Your task to perform on an android device: Open Chrome and go to settings Image 0: 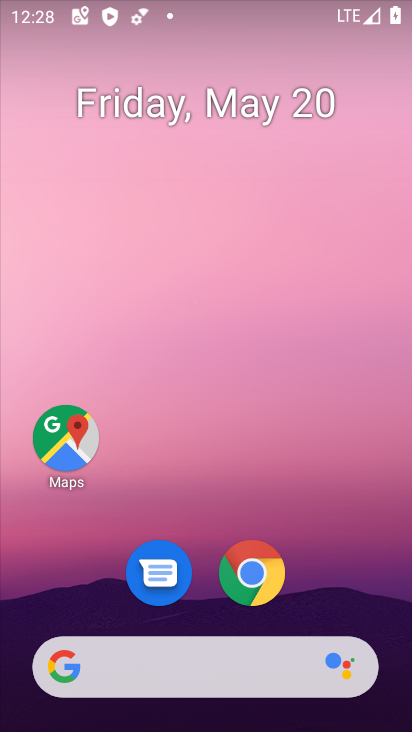
Step 0: click (242, 587)
Your task to perform on an android device: Open Chrome and go to settings Image 1: 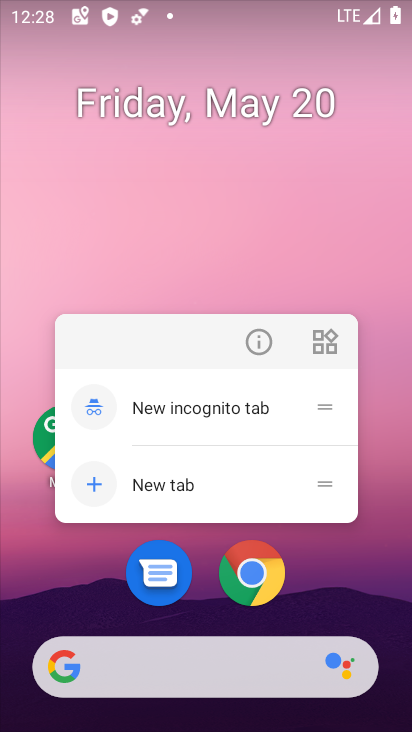
Step 1: click (240, 585)
Your task to perform on an android device: Open Chrome and go to settings Image 2: 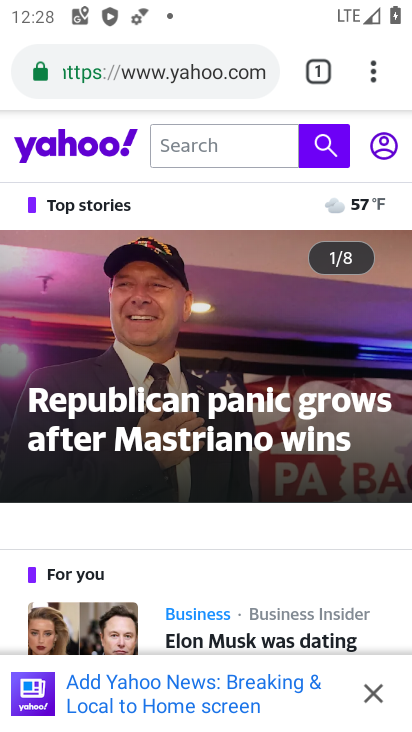
Step 2: click (382, 82)
Your task to perform on an android device: Open Chrome and go to settings Image 3: 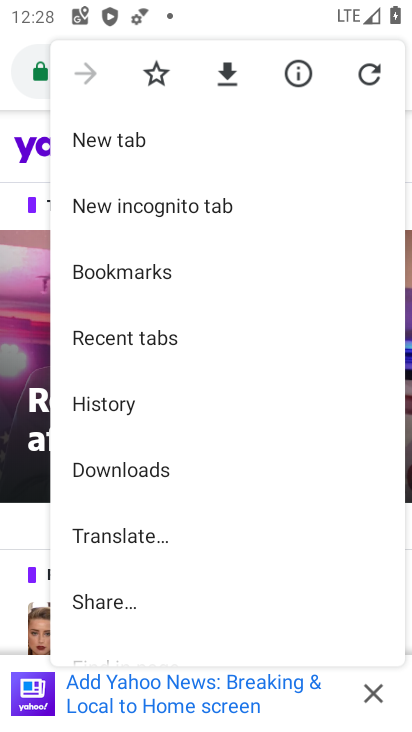
Step 3: drag from (179, 564) to (223, 251)
Your task to perform on an android device: Open Chrome and go to settings Image 4: 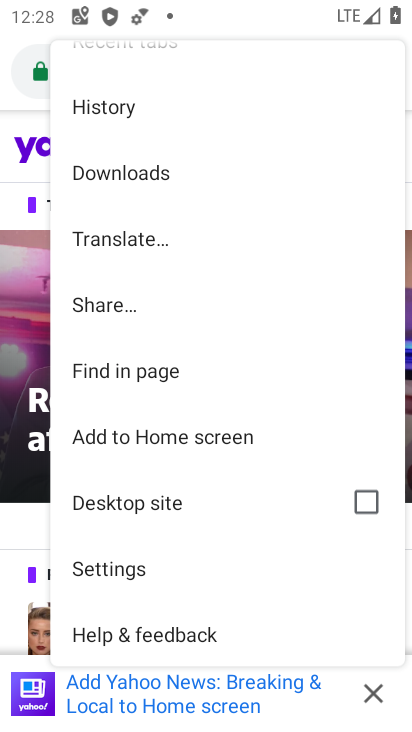
Step 4: click (133, 577)
Your task to perform on an android device: Open Chrome and go to settings Image 5: 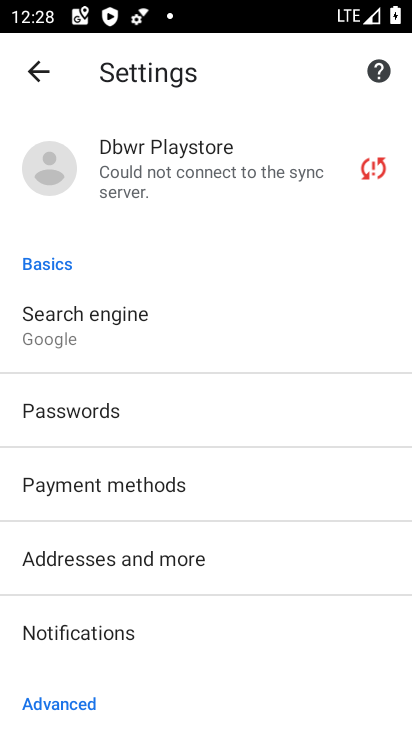
Step 5: task complete